Your task to perform on an android device: turn on the 12-hour format for clock Image 0: 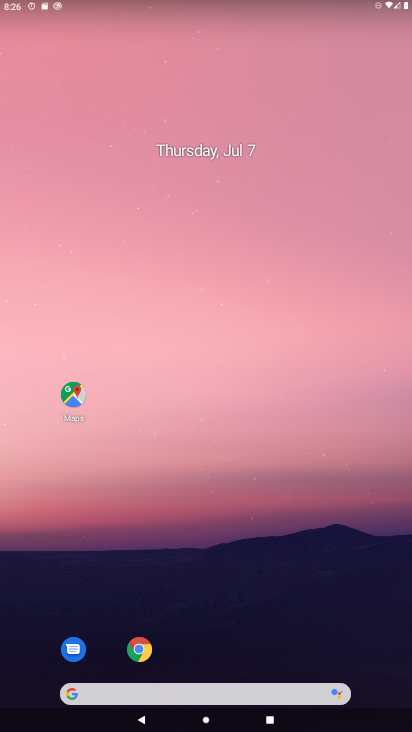
Step 0: drag from (213, 657) to (201, 41)
Your task to perform on an android device: turn on the 12-hour format for clock Image 1: 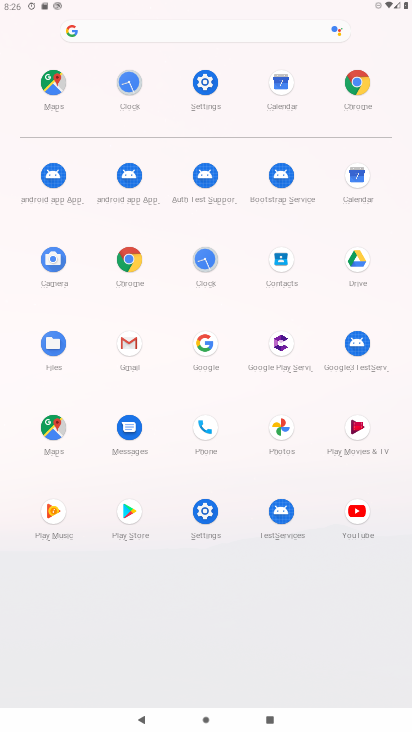
Step 1: click (204, 256)
Your task to perform on an android device: turn on the 12-hour format for clock Image 2: 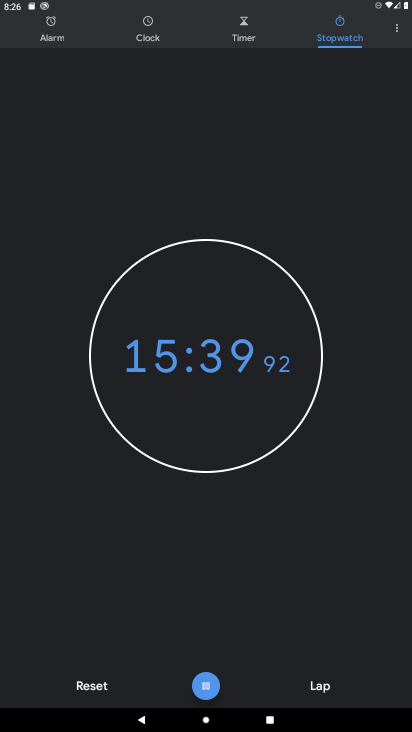
Step 2: click (394, 27)
Your task to perform on an android device: turn on the 12-hour format for clock Image 3: 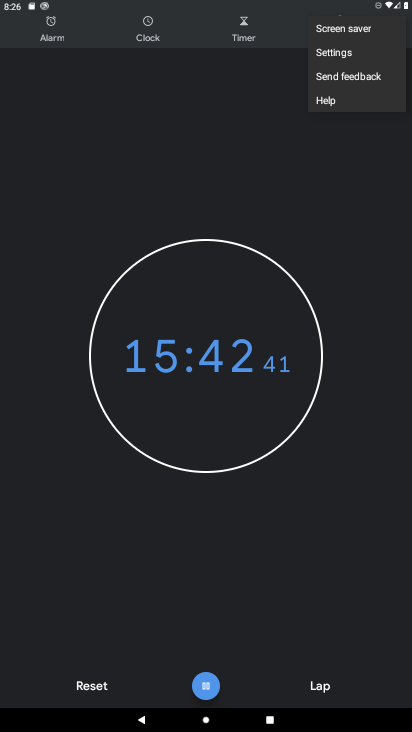
Step 3: click (344, 54)
Your task to perform on an android device: turn on the 12-hour format for clock Image 4: 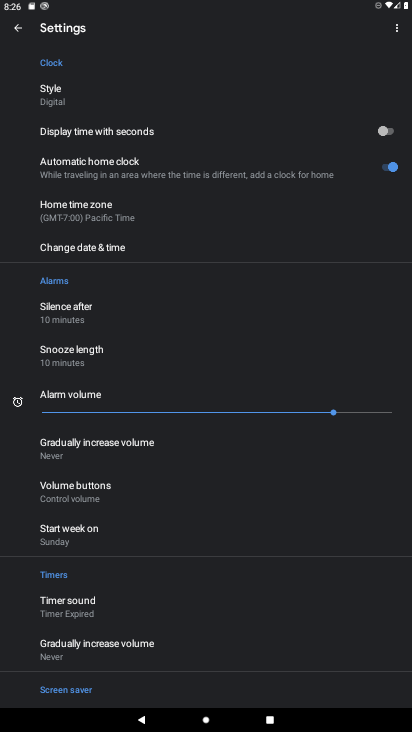
Step 4: click (130, 249)
Your task to perform on an android device: turn on the 12-hour format for clock Image 5: 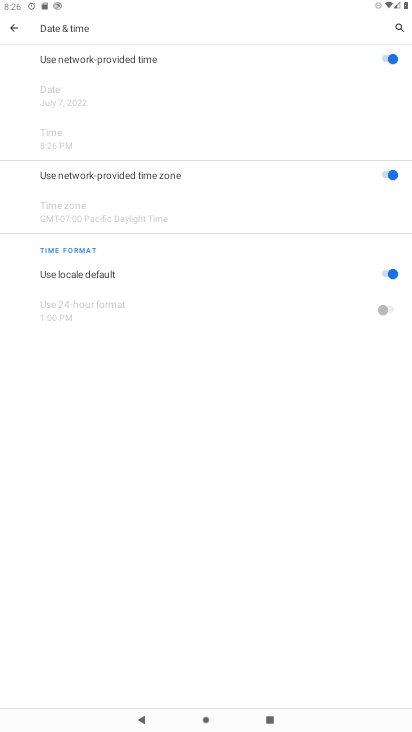
Step 5: task complete